Your task to perform on an android device: change timer sound Image 0: 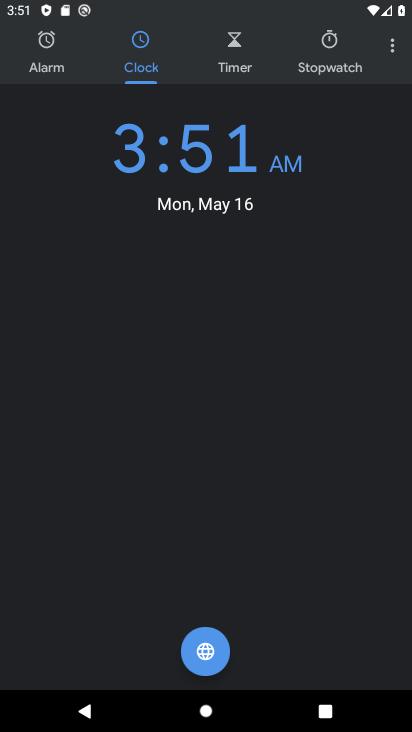
Step 0: press home button
Your task to perform on an android device: change timer sound Image 1: 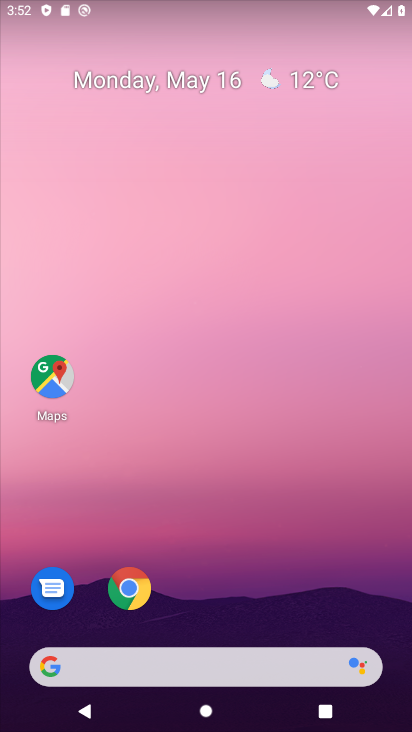
Step 1: drag from (210, 613) to (213, 289)
Your task to perform on an android device: change timer sound Image 2: 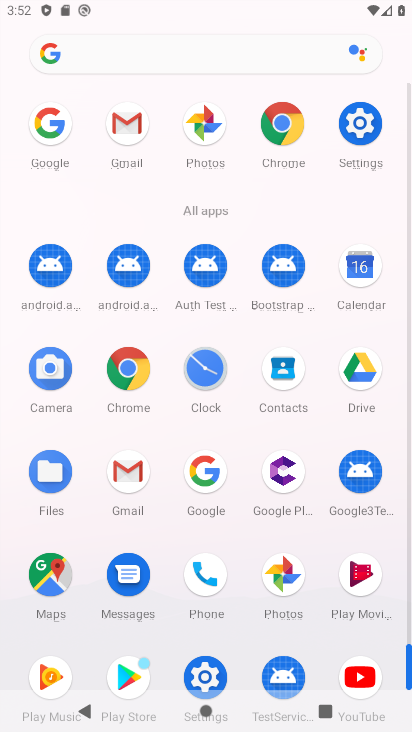
Step 2: click (359, 128)
Your task to perform on an android device: change timer sound Image 3: 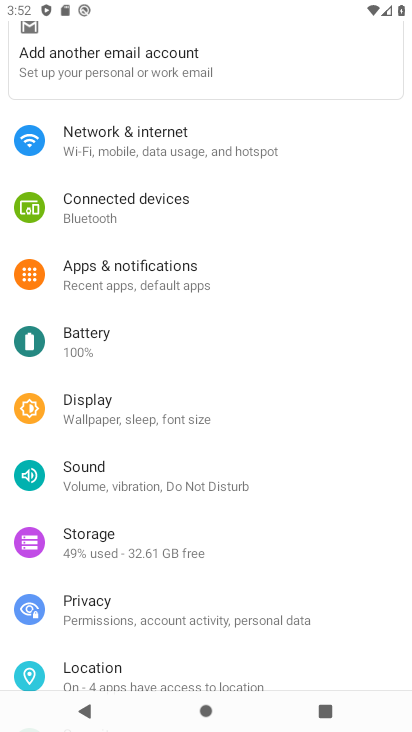
Step 3: press home button
Your task to perform on an android device: change timer sound Image 4: 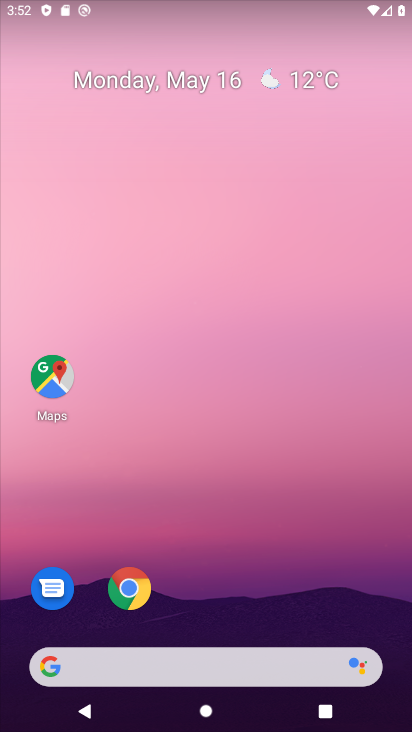
Step 4: drag from (262, 235) to (262, 131)
Your task to perform on an android device: change timer sound Image 5: 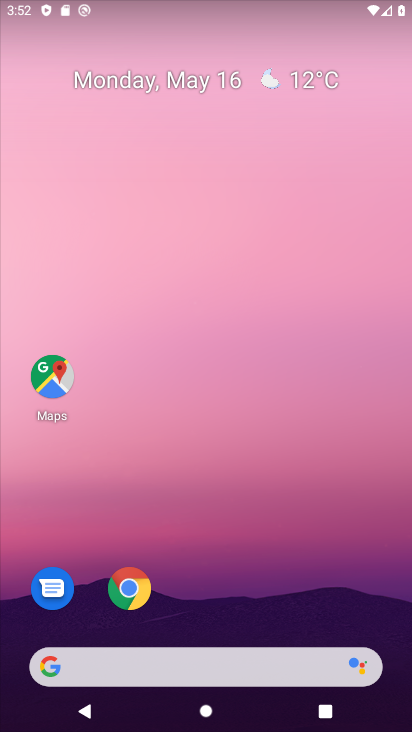
Step 5: drag from (207, 445) to (207, 88)
Your task to perform on an android device: change timer sound Image 6: 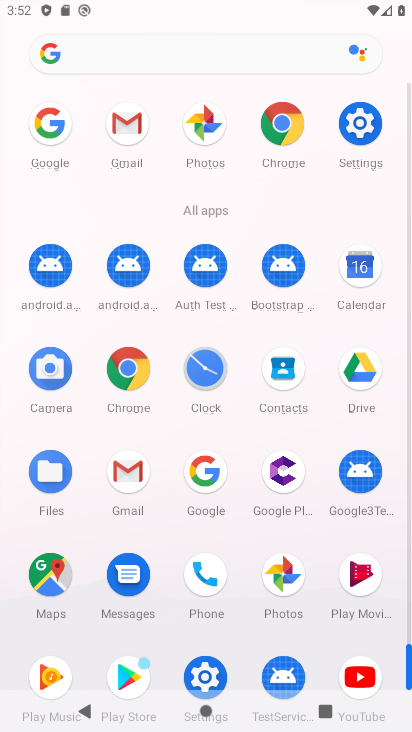
Step 6: click (203, 366)
Your task to perform on an android device: change timer sound Image 7: 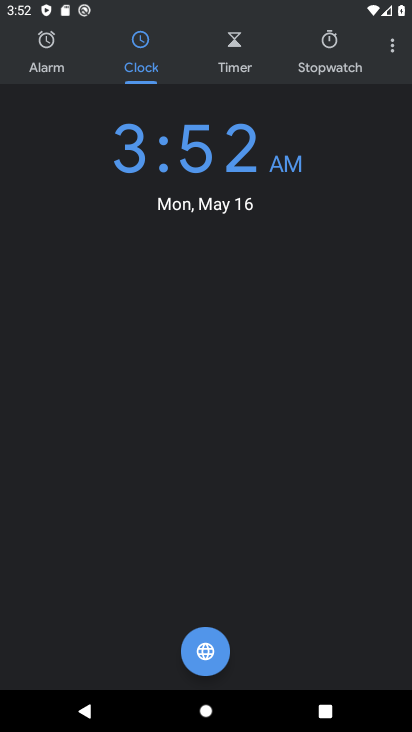
Step 7: click (390, 41)
Your task to perform on an android device: change timer sound Image 8: 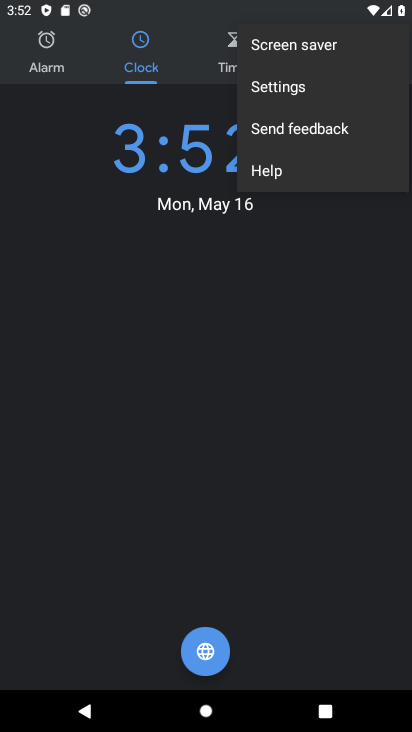
Step 8: click (319, 83)
Your task to perform on an android device: change timer sound Image 9: 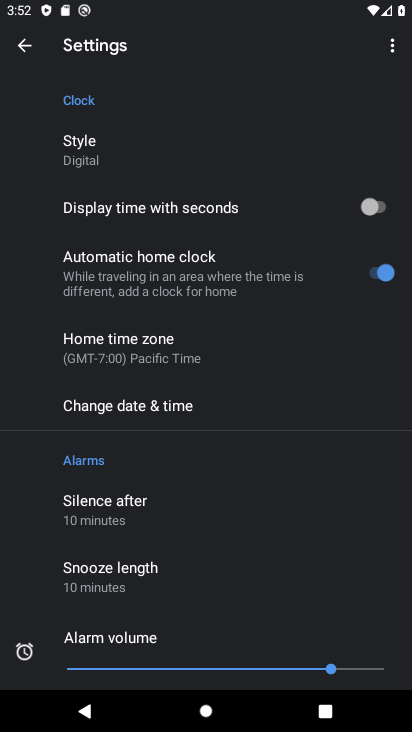
Step 9: drag from (181, 447) to (181, 188)
Your task to perform on an android device: change timer sound Image 10: 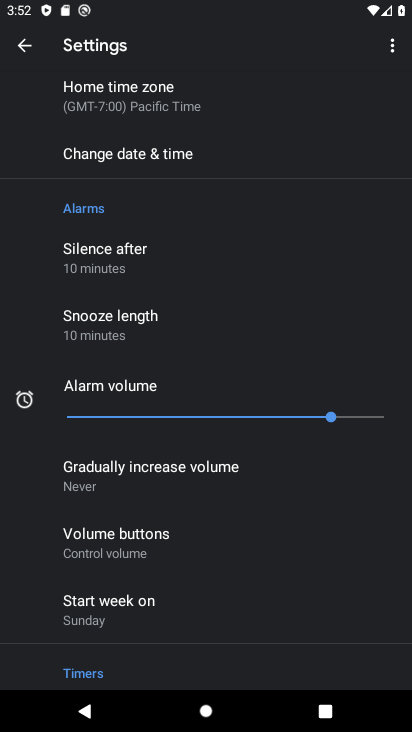
Step 10: drag from (214, 559) to (208, 236)
Your task to perform on an android device: change timer sound Image 11: 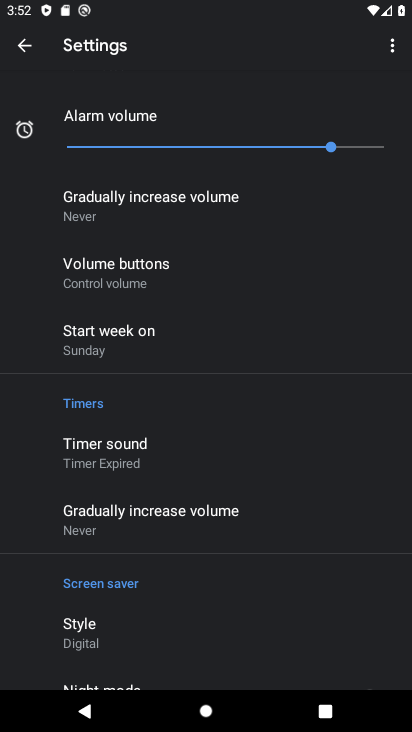
Step 11: click (155, 434)
Your task to perform on an android device: change timer sound Image 12: 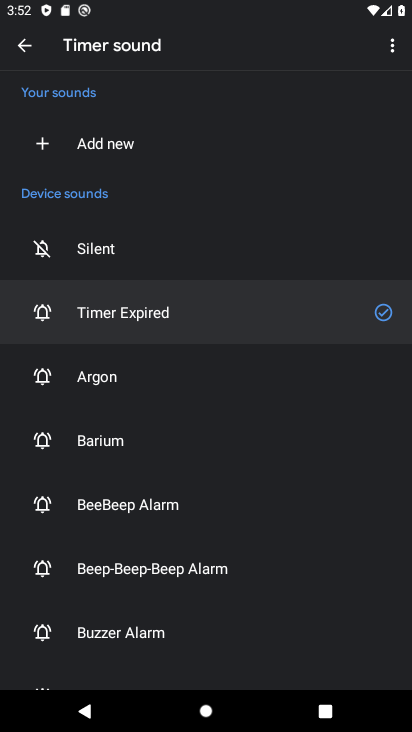
Step 12: click (112, 383)
Your task to perform on an android device: change timer sound Image 13: 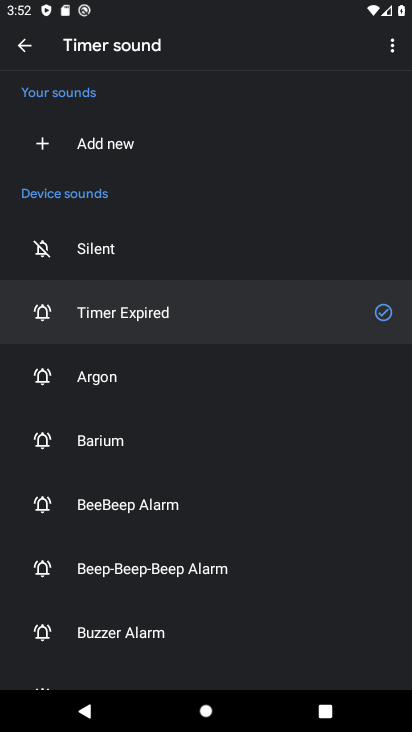
Step 13: click (112, 383)
Your task to perform on an android device: change timer sound Image 14: 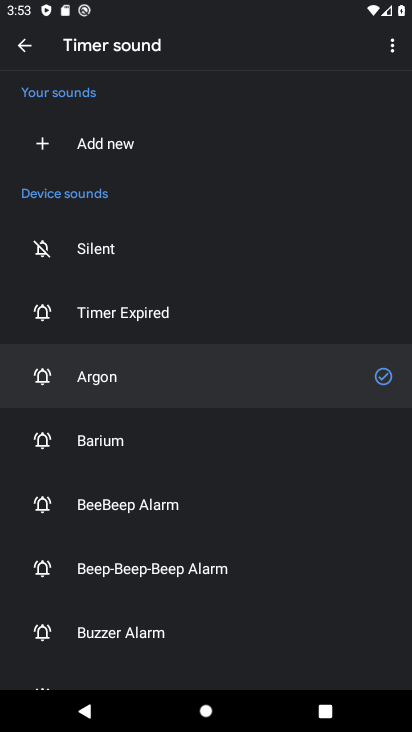
Step 14: task complete